Your task to perform on an android device: turn on location history Image 0: 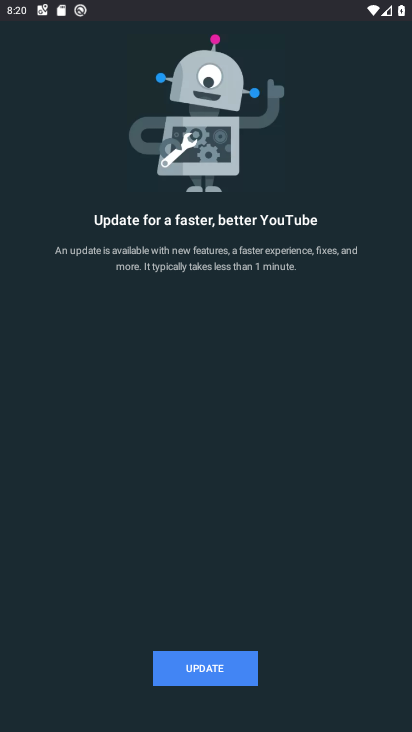
Step 0: press home button
Your task to perform on an android device: turn on location history Image 1: 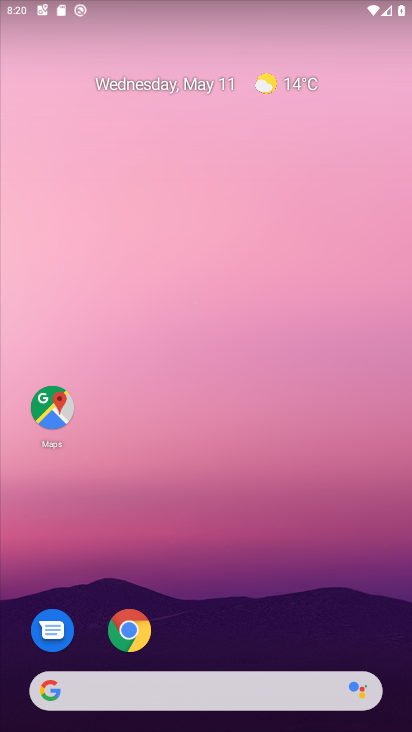
Step 1: drag from (47, 671) to (254, 168)
Your task to perform on an android device: turn on location history Image 2: 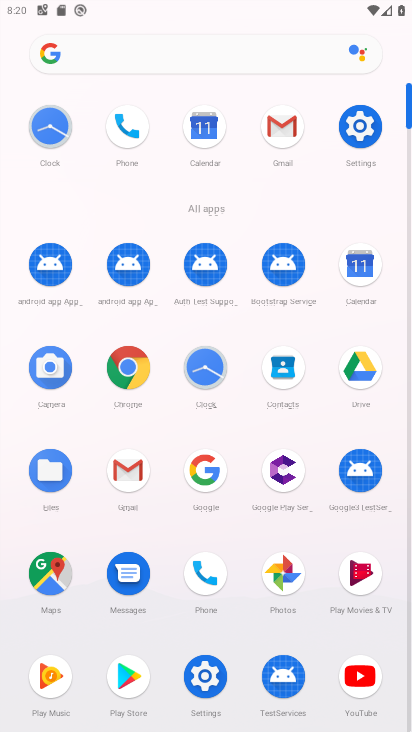
Step 2: click (365, 119)
Your task to perform on an android device: turn on location history Image 3: 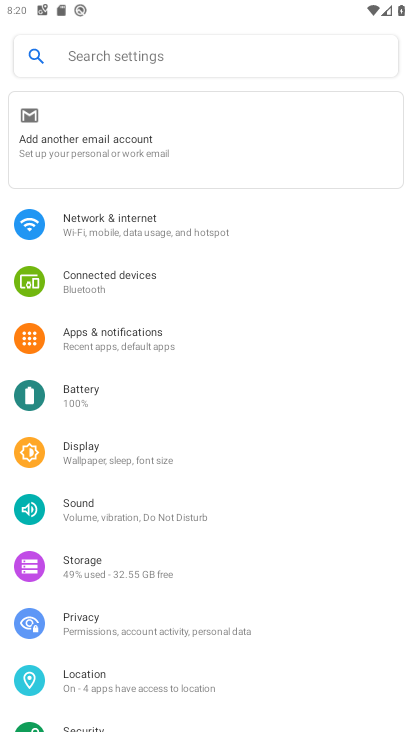
Step 3: click (82, 685)
Your task to perform on an android device: turn on location history Image 4: 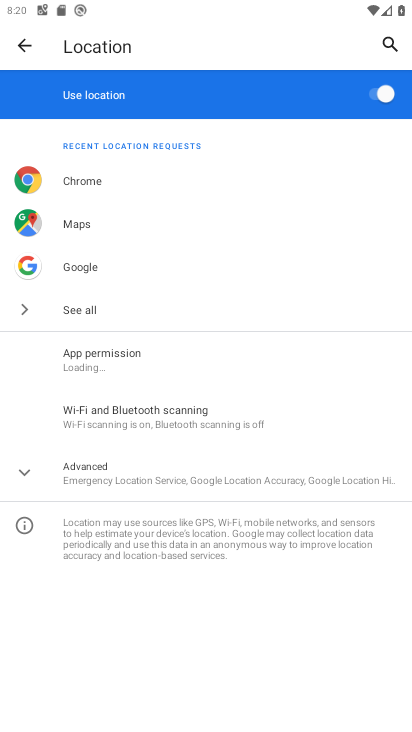
Step 4: click (113, 477)
Your task to perform on an android device: turn on location history Image 5: 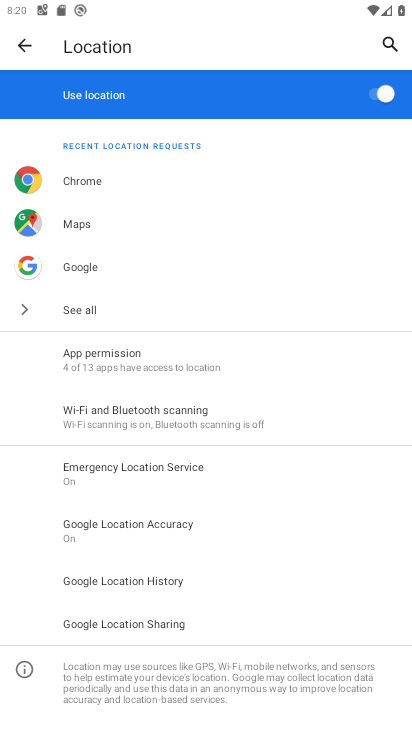
Step 5: click (175, 577)
Your task to perform on an android device: turn on location history Image 6: 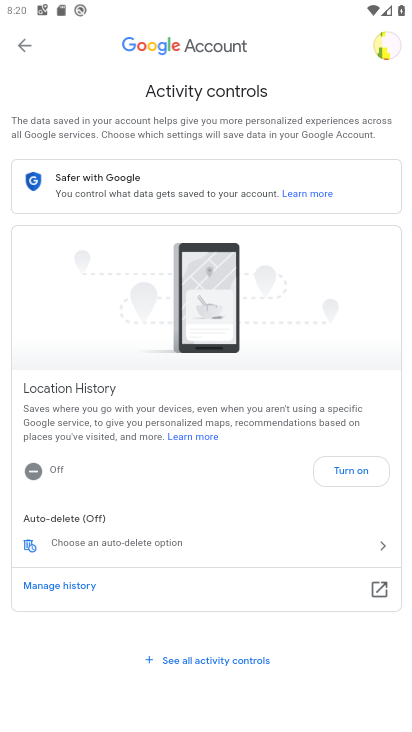
Step 6: click (347, 490)
Your task to perform on an android device: turn on location history Image 7: 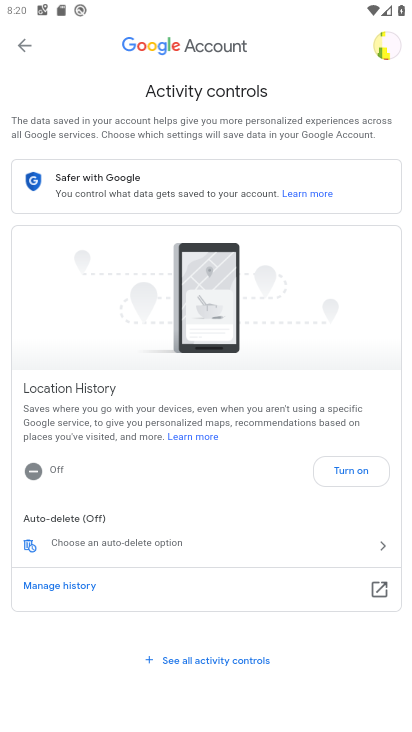
Step 7: click (328, 469)
Your task to perform on an android device: turn on location history Image 8: 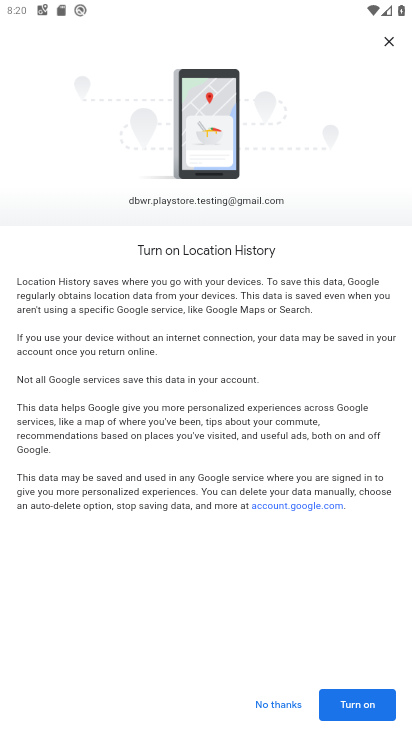
Step 8: click (388, 702)
Your task to perform on an android device: turn on location history Image 9: 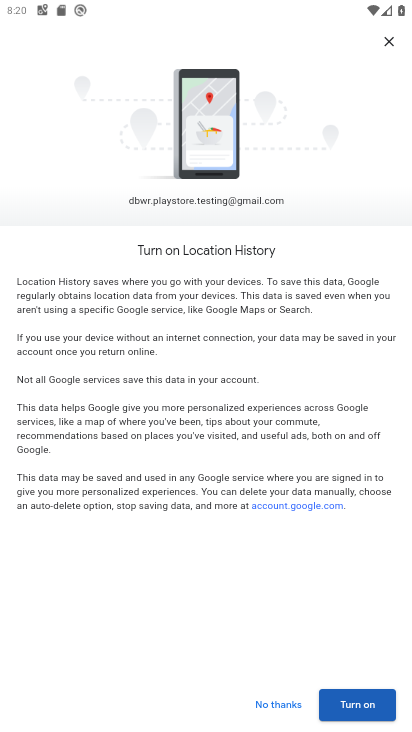
Step 9: click (362, 703)
Your task to perform on an android device: turn on location history Image 10: 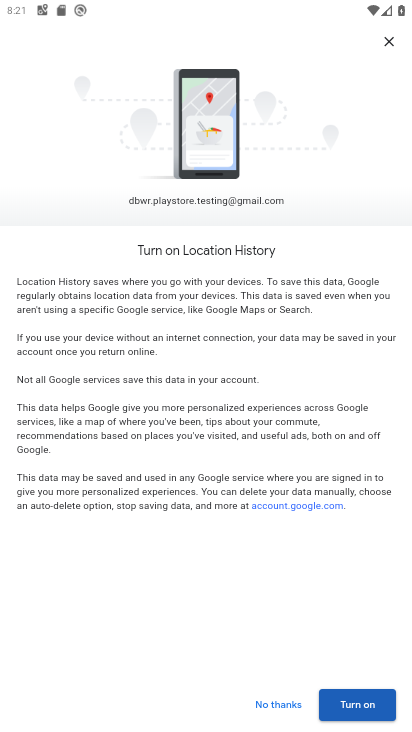
Step 10: click (355, 698)
Your task to perform on an android device: turn on location history Image 11: 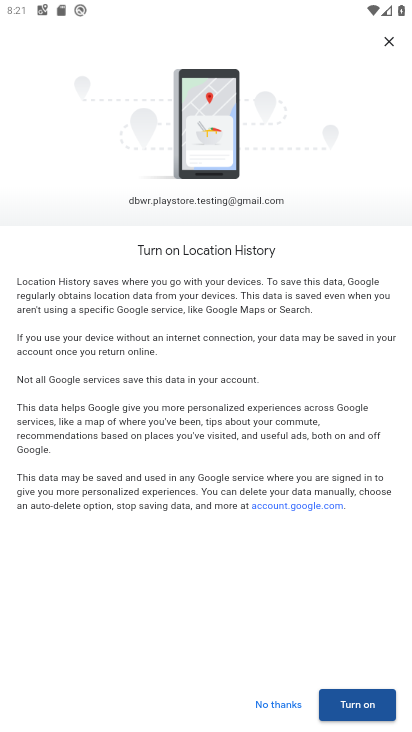
Step 11: click (354, 708)
Your task to perform on an android device: turn on location history Image 12: 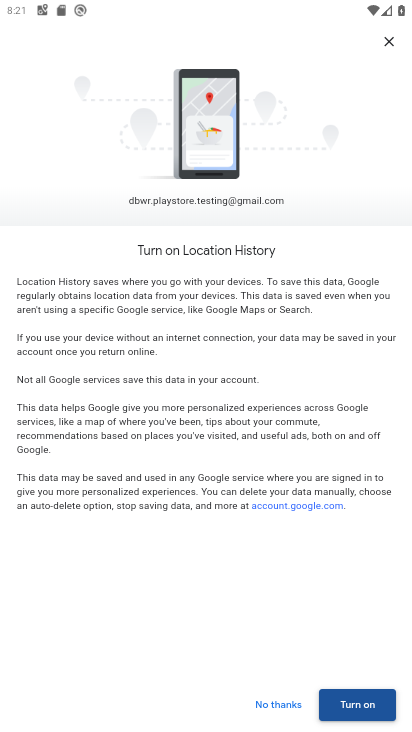
Step 12: click (354, 706)
Your task to perform on an android device: turn on location history Image 13: 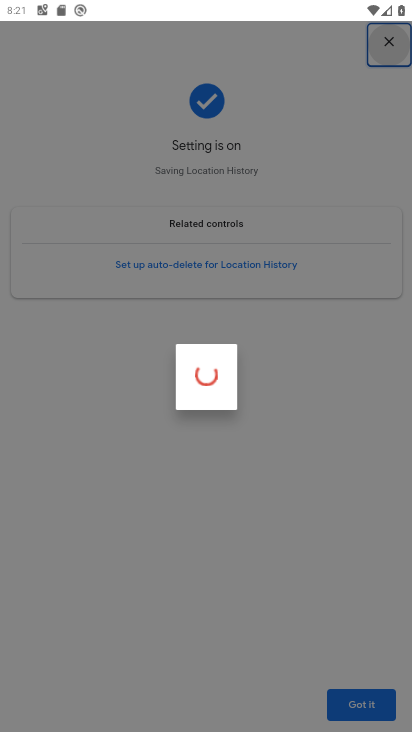
Step 13: task complete